Your task to perform on an android device: Play the last video I watched on Youtube Image 0: 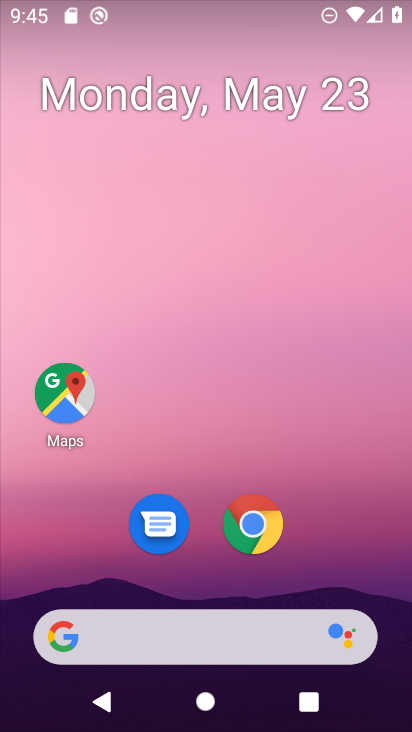
Step 0: drag from (229, 430) to (222, 0)
Your task to perform on an android device: Play the last video I watched on Youtube Image 1: 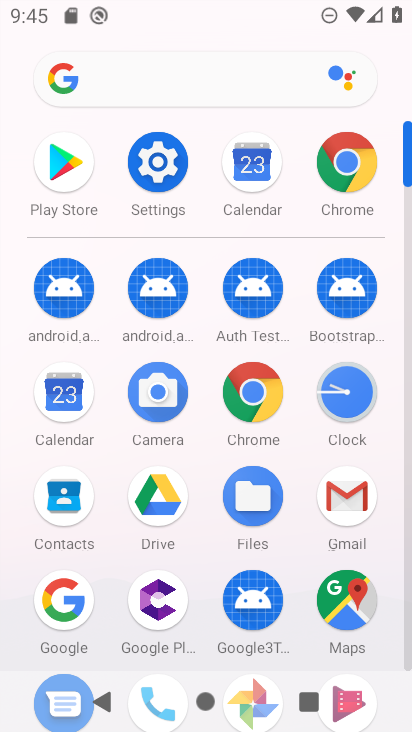
Step 1: drag from (291, 604) to (296, 166)
Your task to perform on an android device: Play the last video I watched on Youtube Image 2: 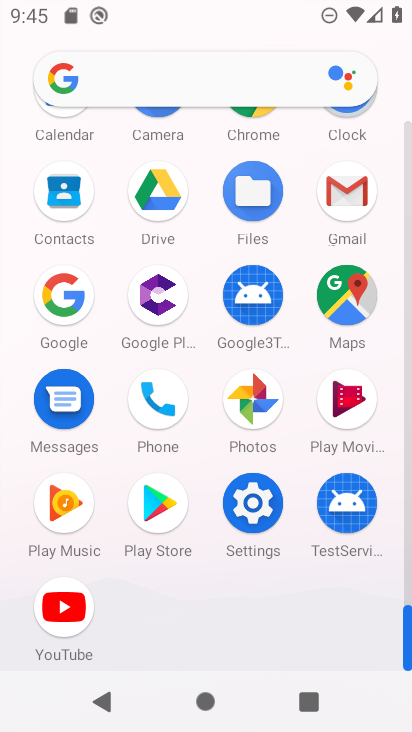
Step 2: click (69, 592)
Your task to perform on an android device: Play the last video I watched on Youtube Image 3: 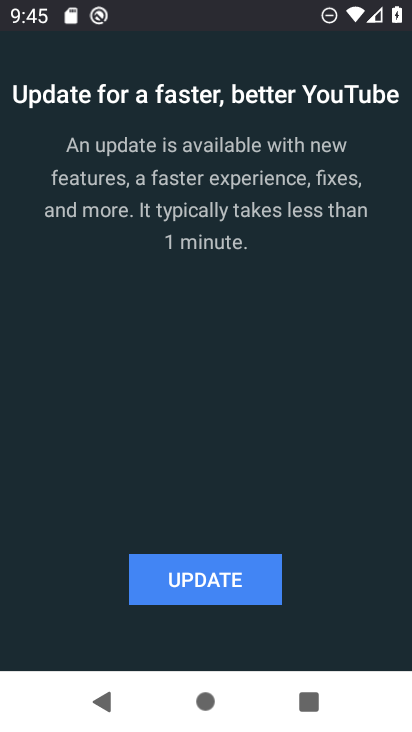
Step 3: click (215, 573)
Your task to perform on an android device: Play the last video I watched on Youtube Image 4: 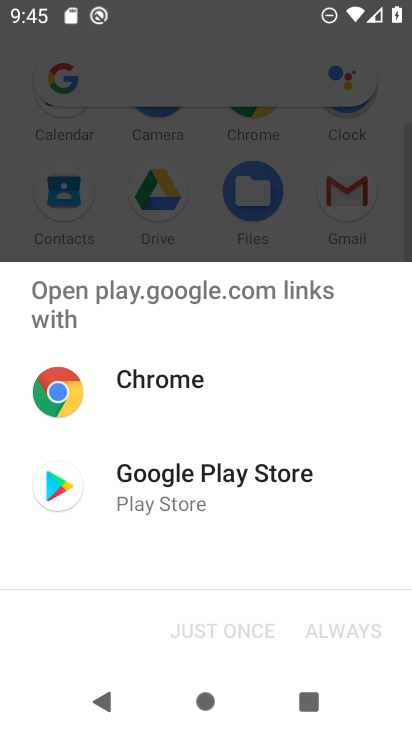
Step 4: click (201, 492)
Your task to perform on an android device: Play the last video I watched on Youtube Image 5: 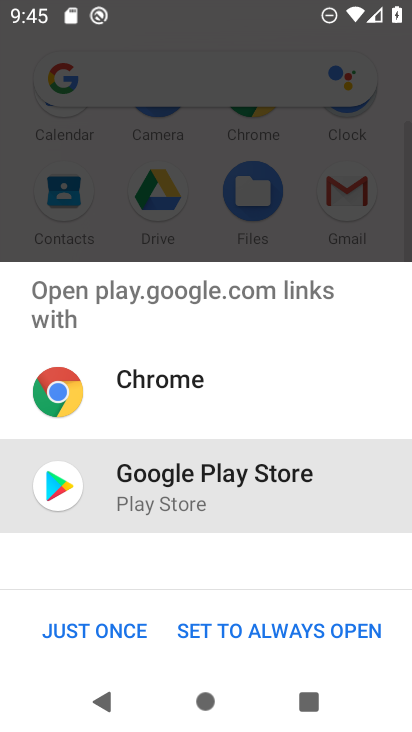
Step 5: click (99, 614)
Your task to perform on an android device: Play the last video I watched on Youtube Image 6: 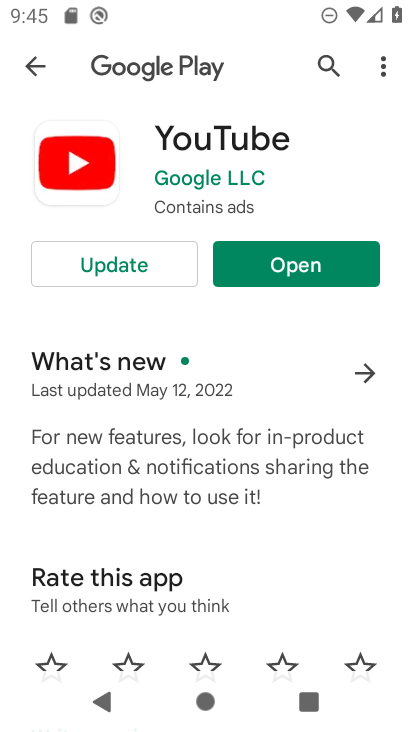
Step 6: click (174, 261)
Your task to perform on an android device: Play the last video I watched on Youtube Image 7: 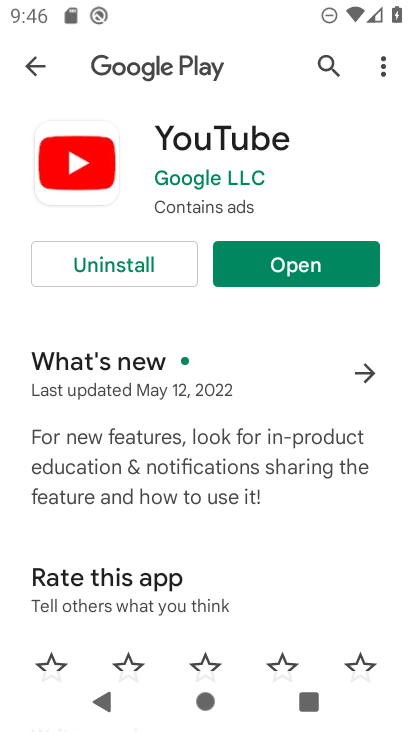
Step 7: click (227, 266)
Your task to perform on an android device: Play the last video I watched on Youtube Image 8: 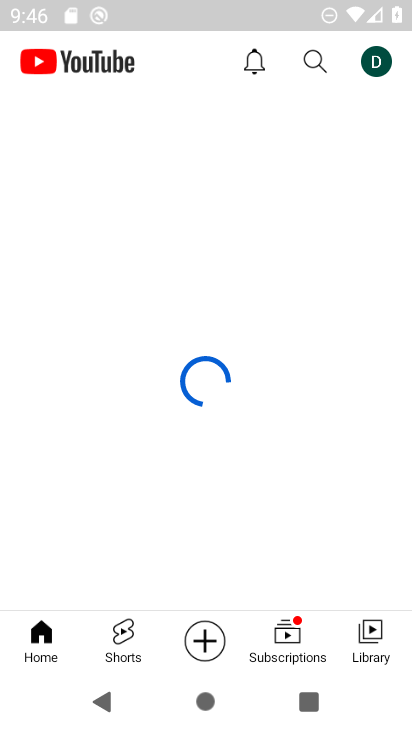
Step 8: click (359, 637)
Your task to perform on an android device: Play the last video I watched on Youtube Image 9: 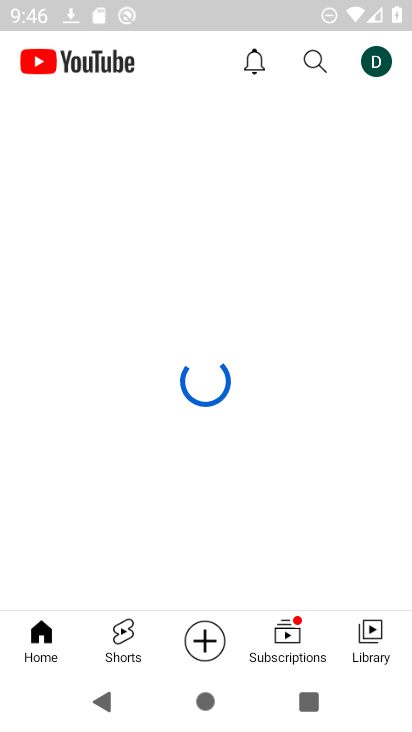
Step 9: click (368, 641)
Your task to perform on an android device: Play the last video I watched on Youtube Image 10: 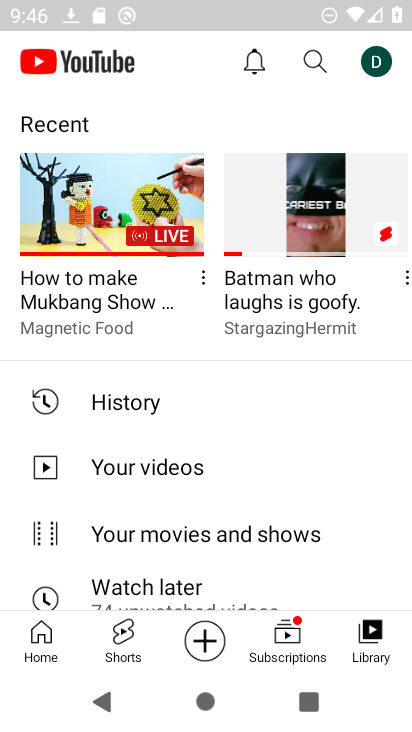
Step 10: click (155, 390)
Your task to perform on an android device: Play the last video I watched on Youtube Image 11: 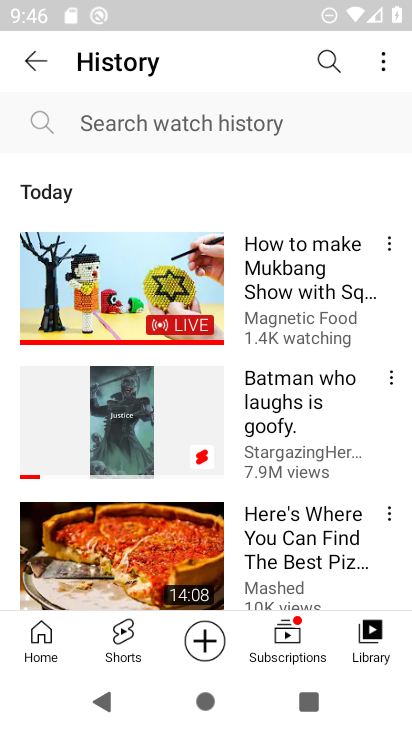
Step 11: click (144, 271)
Your task to perform on an android device: Play the last video I watched on Youtube Image 12: 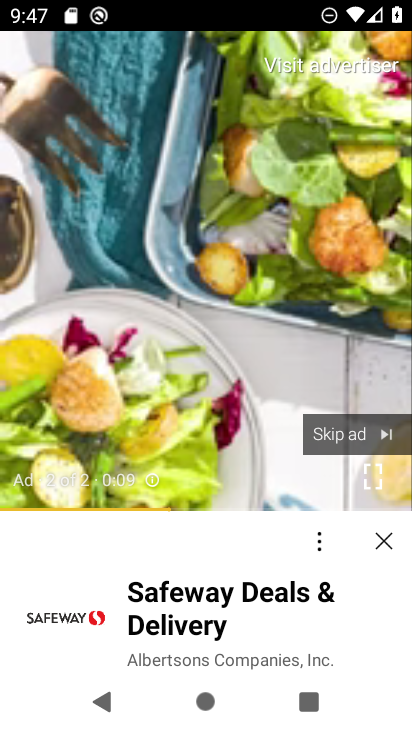
Step 12: click (319, 430)
Your task to perform on an android device: Play the last video I watched on Youtube Image 13: 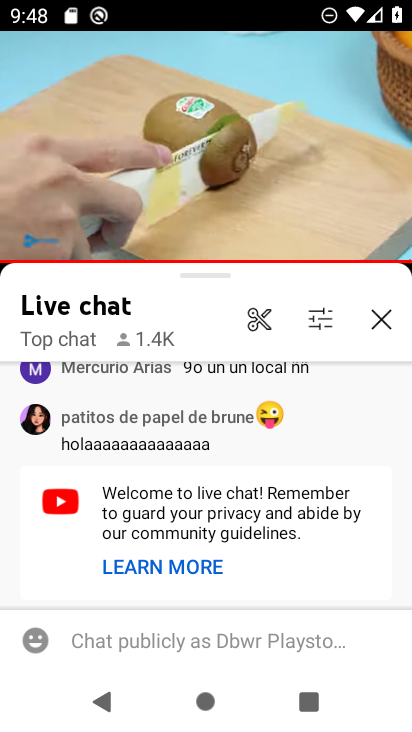
Step 13: task complete